Your task to perform on an android device: open chrome and create a bookmark for the current page Image 0: 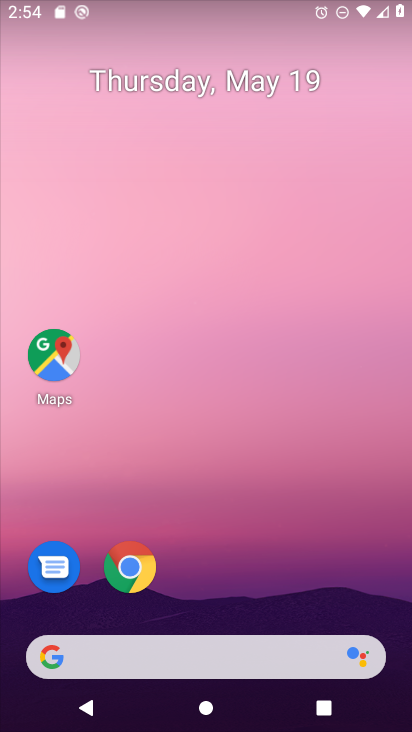
Step 0: click (140, 559)
Your task to perform on an android device: open chrome and create a bookmark for the current page Image 1: 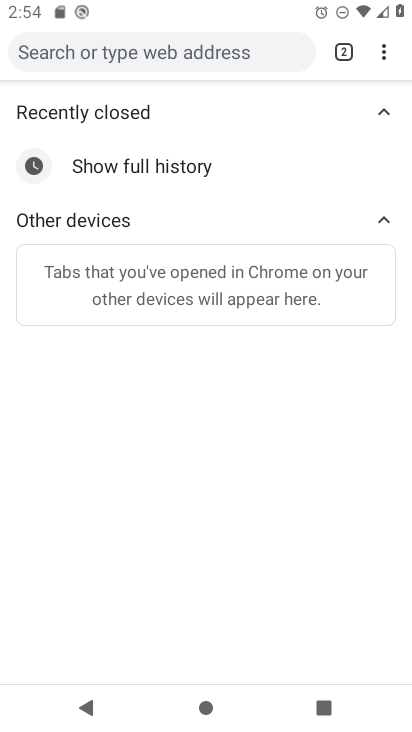
Step 1: click (382, 51)
Your task to perform on an android device: open chrome and create a bookmark for the current page Image 2: 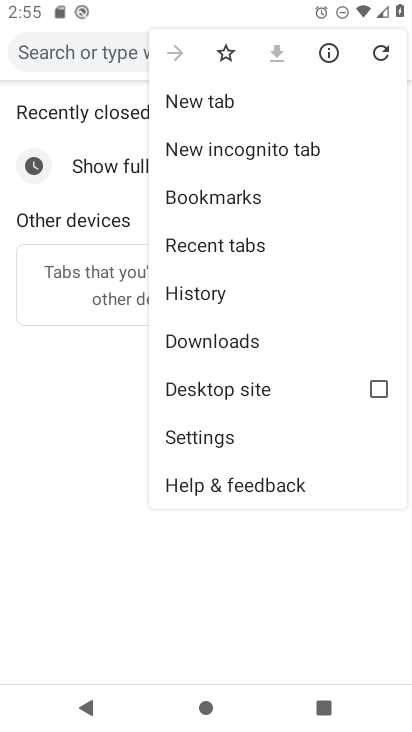
Step 2: click (225, 45)
Your task to perform on an android device: open chrome and create a bookmark for the current page Image 3: 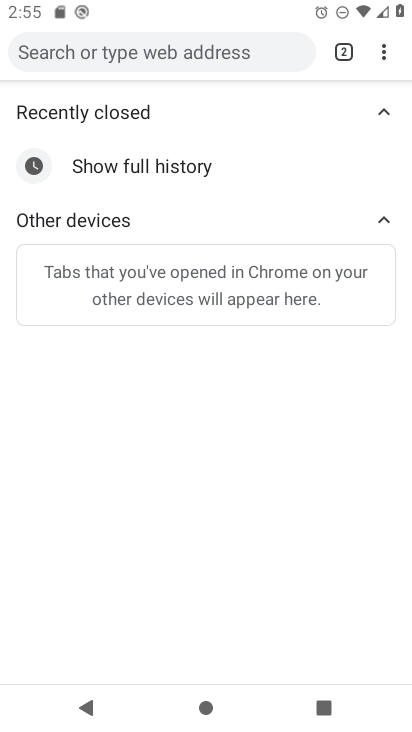
Step 3: task complete